Your task to perform on an android device: Go to Wikipedia Image 0: 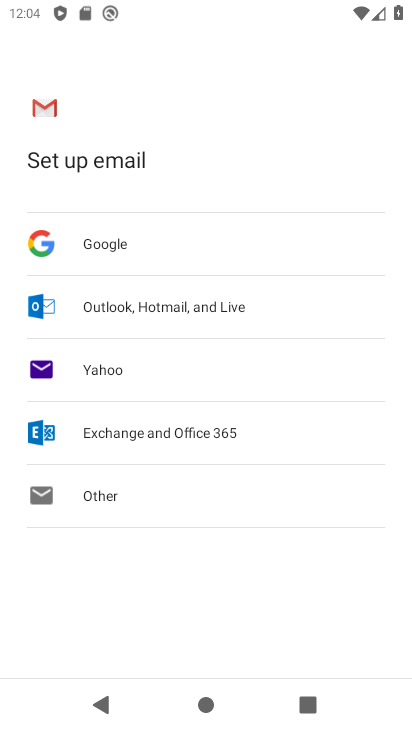
Step 0: press home button
Your task to perform on an android device: Go to Wikipedia Image 1: 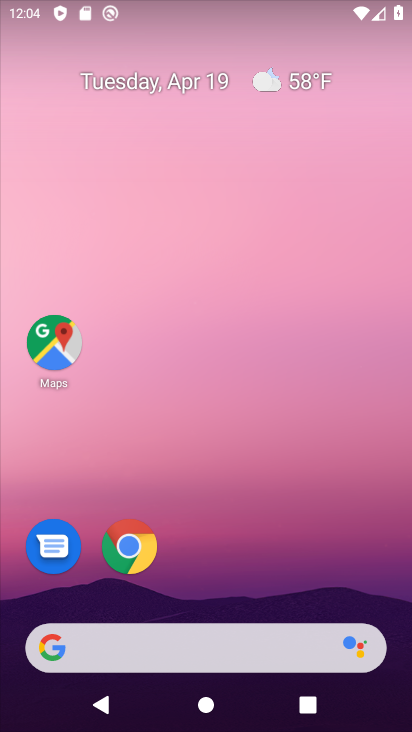
Step 1: click (147, 536)
Your task to perform on an android device: Go to Wikipedia Image 2: 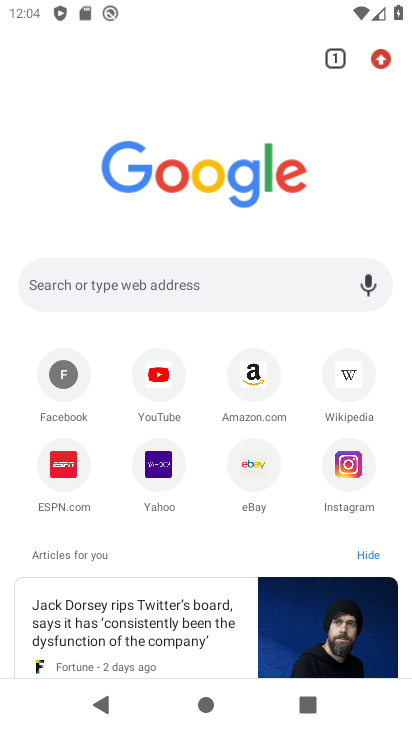
Step 2: click (356, 375)
Your task to perform on an android device: Go to Wikipedia Image 3: 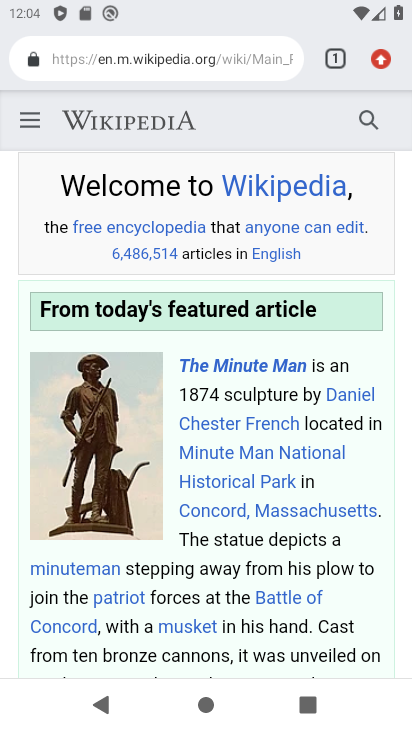
Step 3: task complete